Your task to perform on an android device: Open the web browser Image 0: 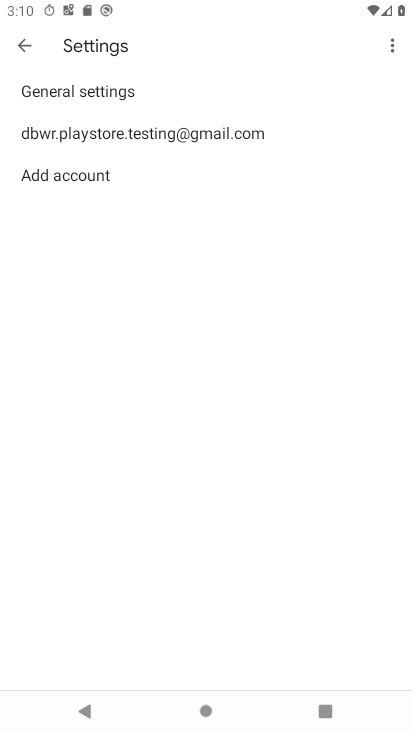
Step 0: press home button
Your task to perform on an android device: Open the web browser Image 1: 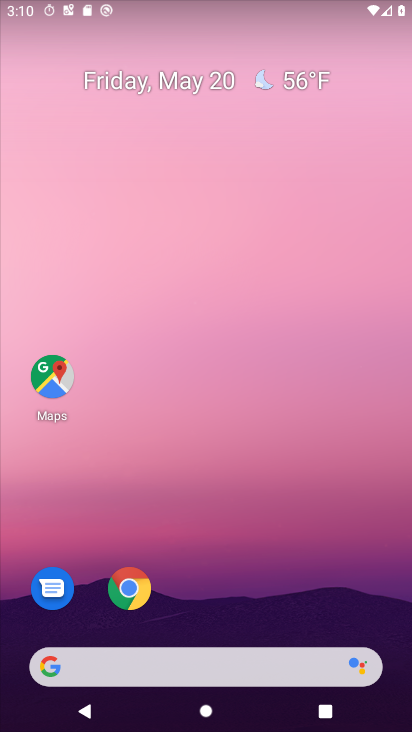
Step 1: task complete